Your task to perform on an android device: Search for seafood restaurants on Google Maps Image 0: 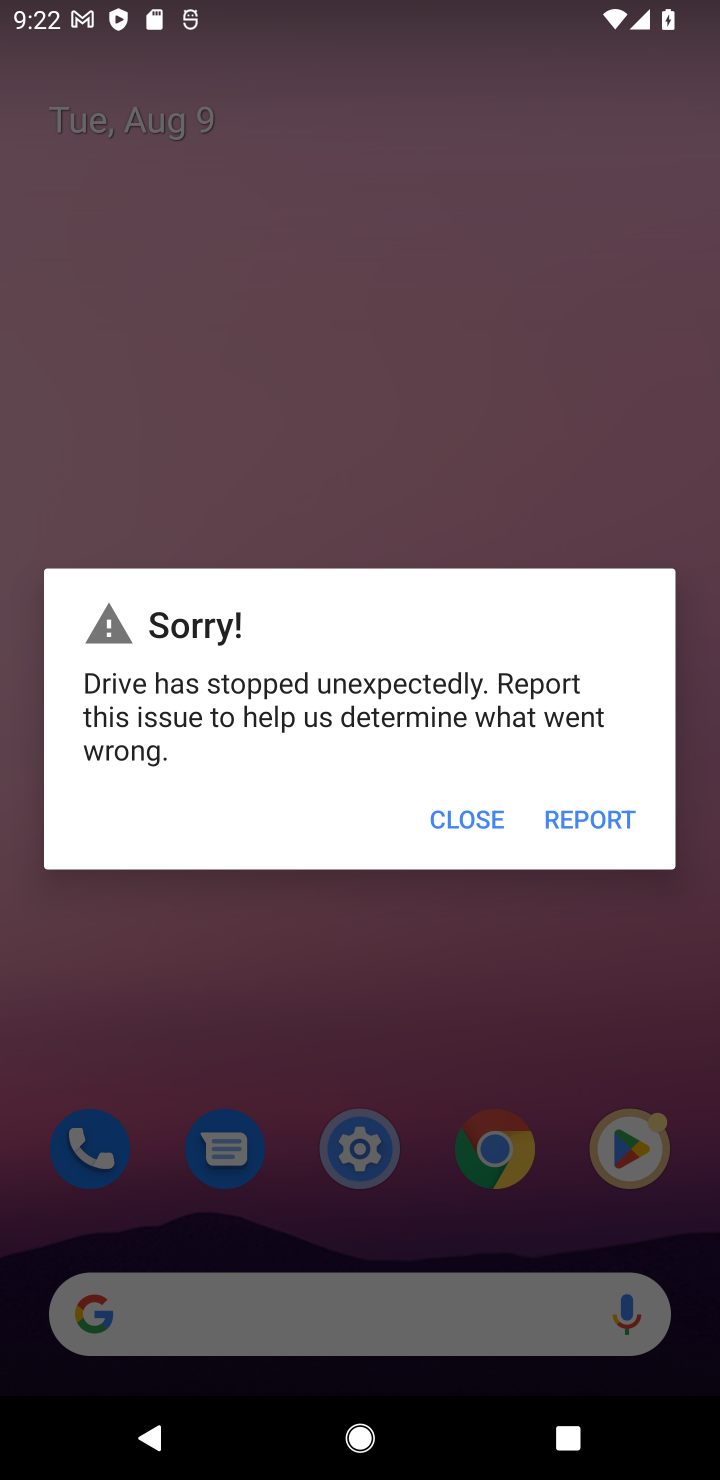
Step 0: click (453, 826)
Your task to perform on an android device: Search for seafood restaurants on Google Maps Image 1: 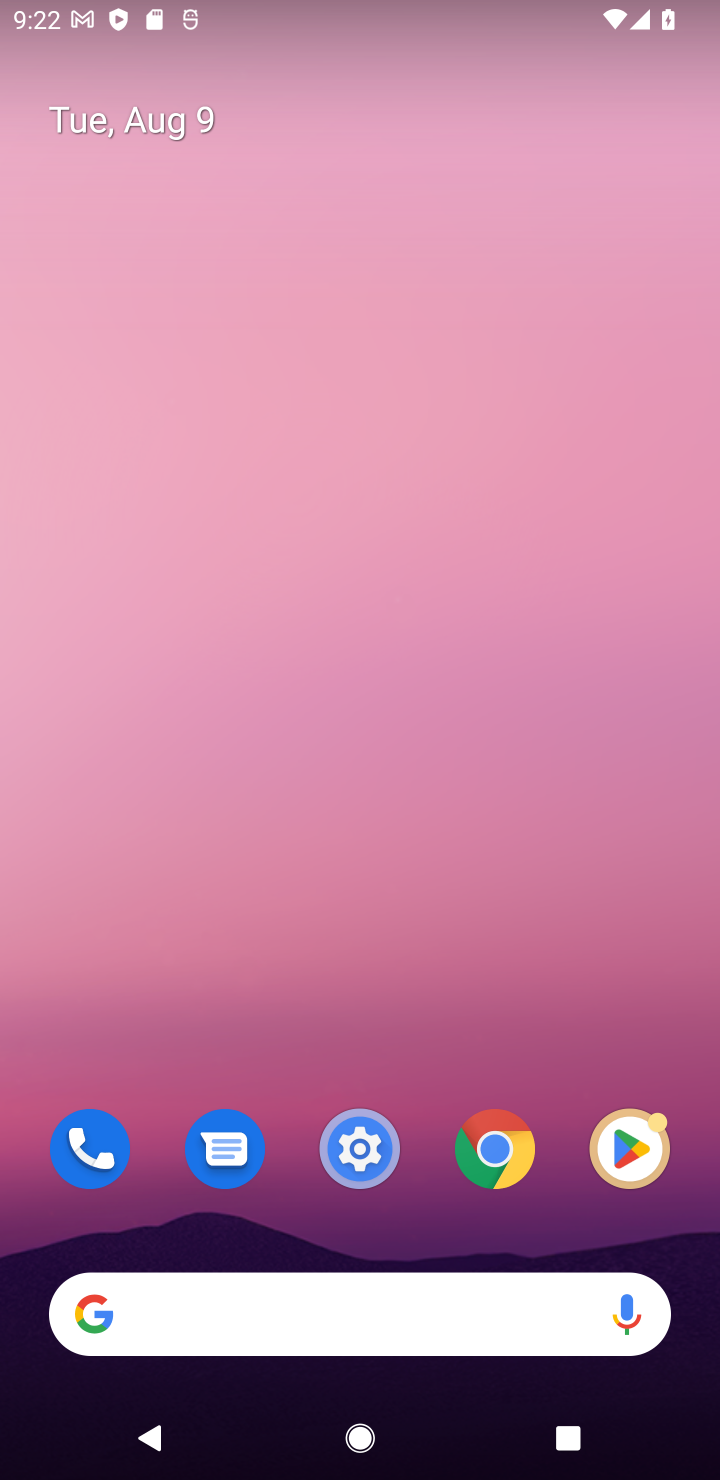
Step 1: drag from (398, 827) to (533, 22)
Your task to perform on an android device: Search for seafood restaurants on Google Maps Image 2: 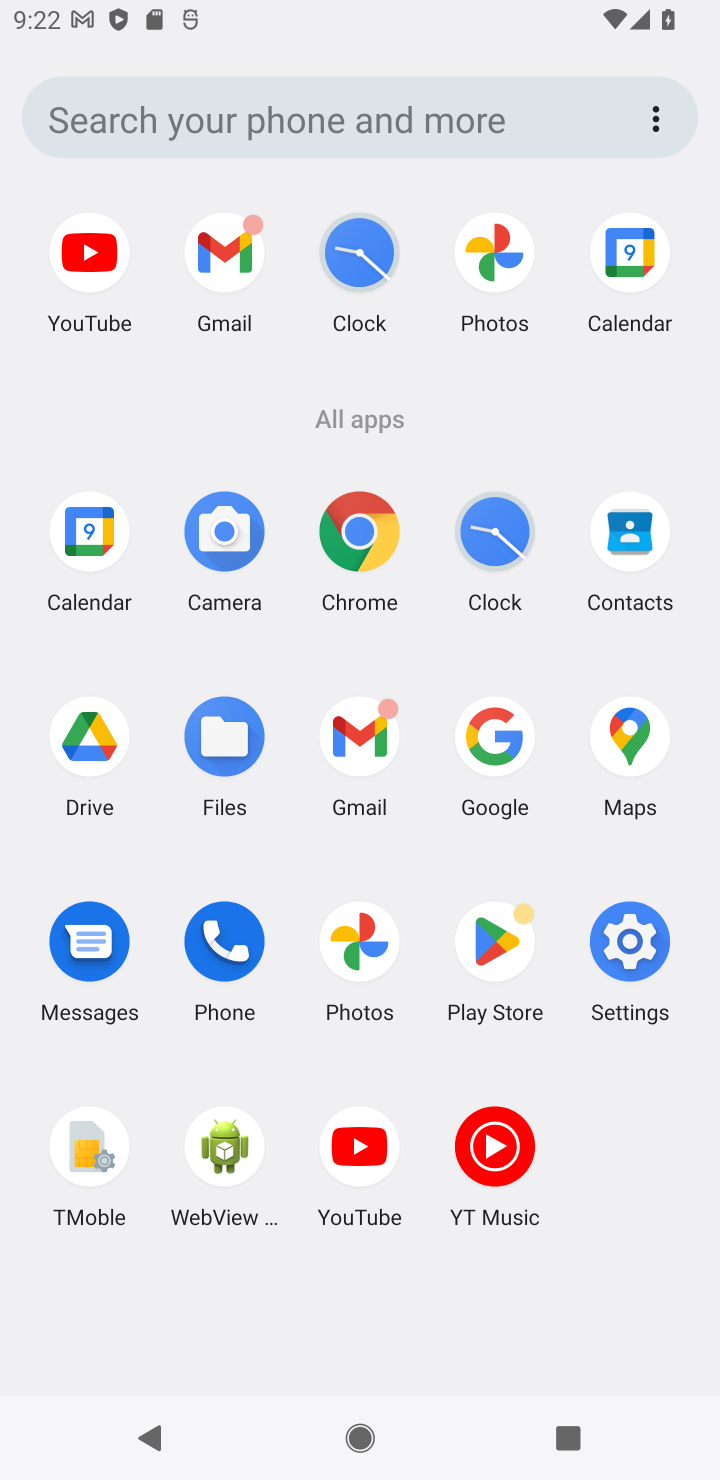
Step 2: click (621, 729)
Your task to perform on an android device: Search for seafood restaurants on Google Maps Image 3: 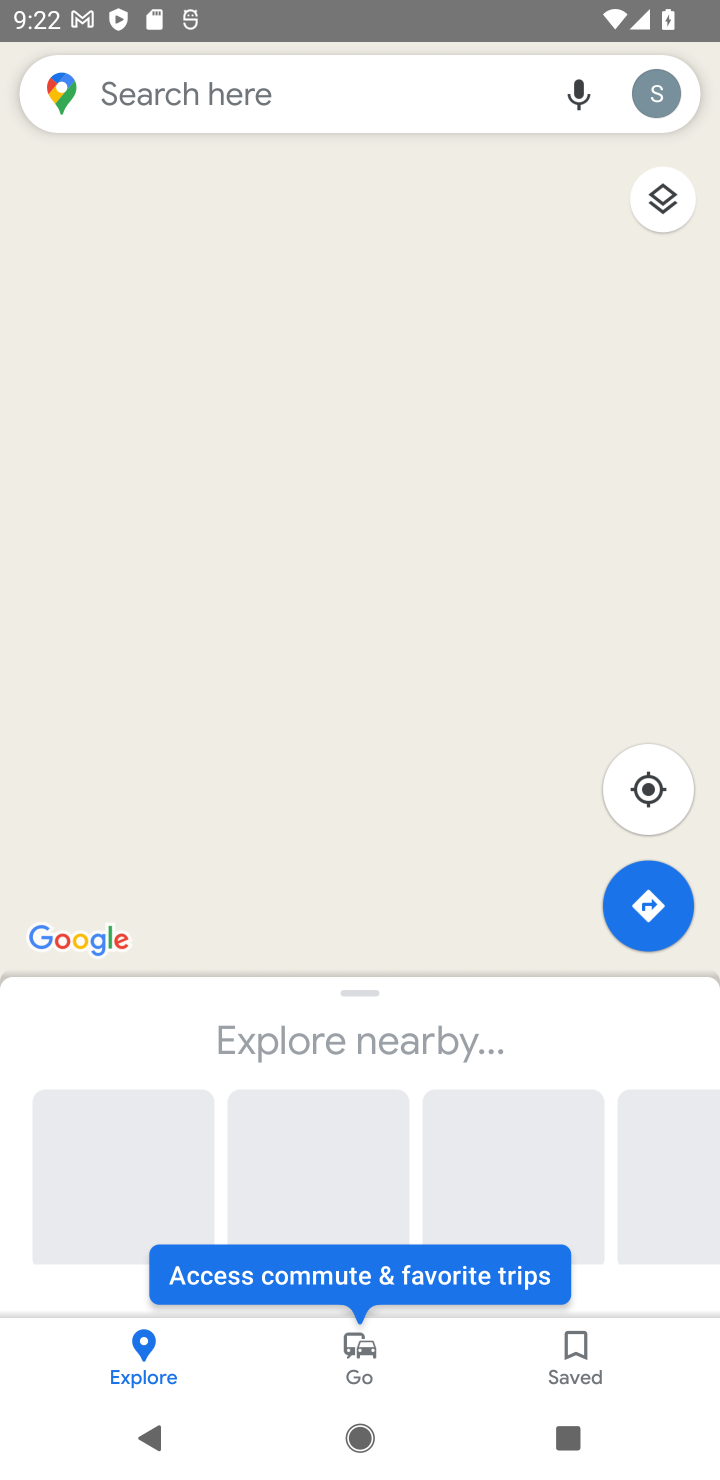
Step 3: click (230, 86)
Your task to perform on an android device: Search for seafood restaurants on Google Maps Image 4: 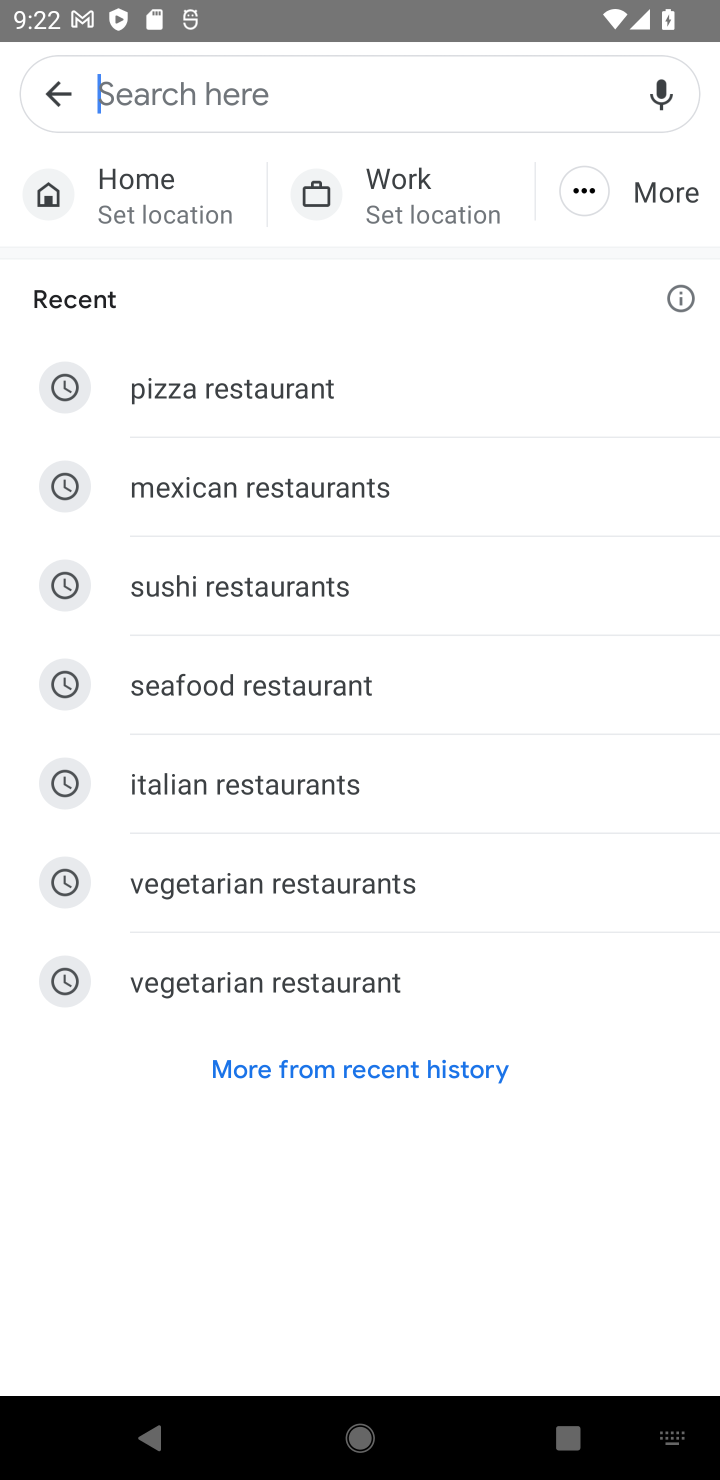
Step 4: type "seafood"
Your task to perform on an android device: Search for seafood restaurants on Google Maps Image 5: 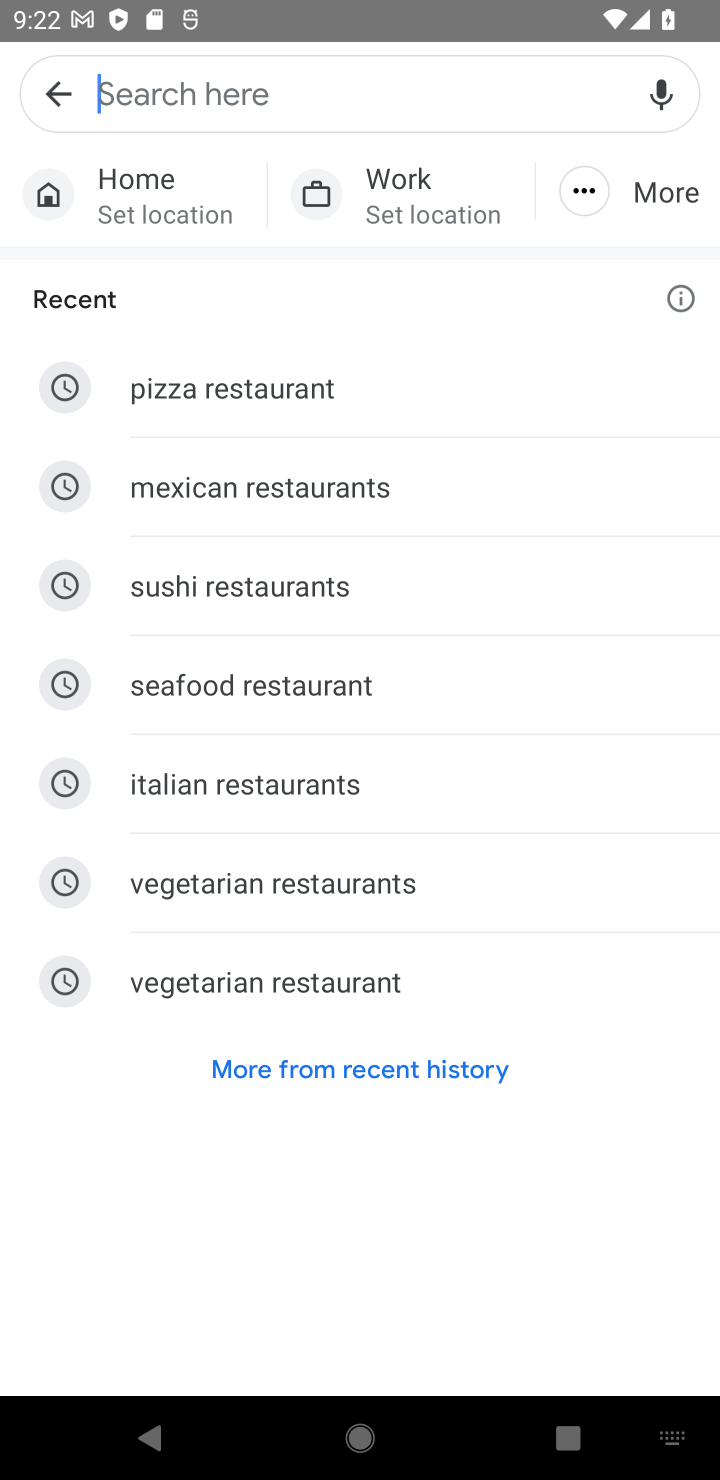
Step 5: click (260, 703)
Your task to perform on an android device: Search for seafood restaurants on Google Maps Image 6: 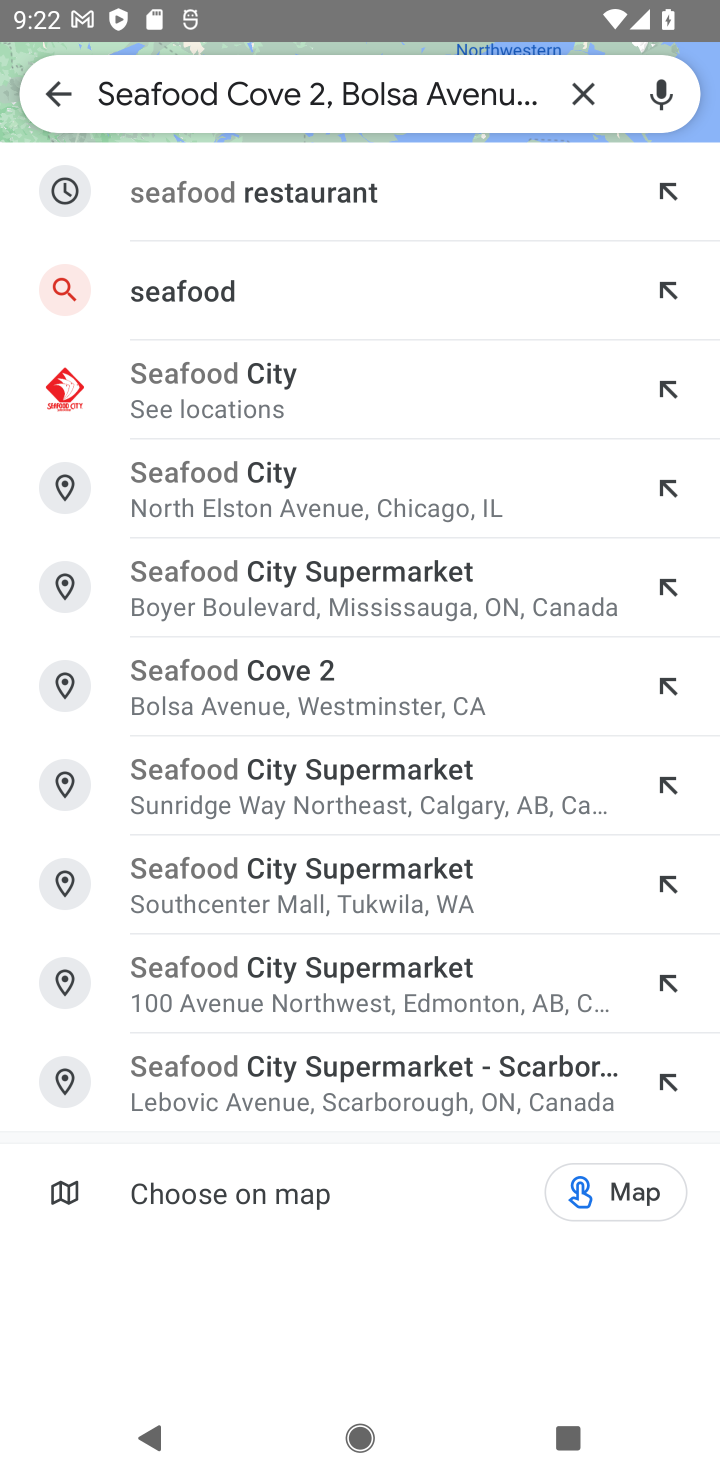
Step 6: click (326, 181)
Your task to perform on an android device: Search for seafood restaurants on Google Maps Image 7: 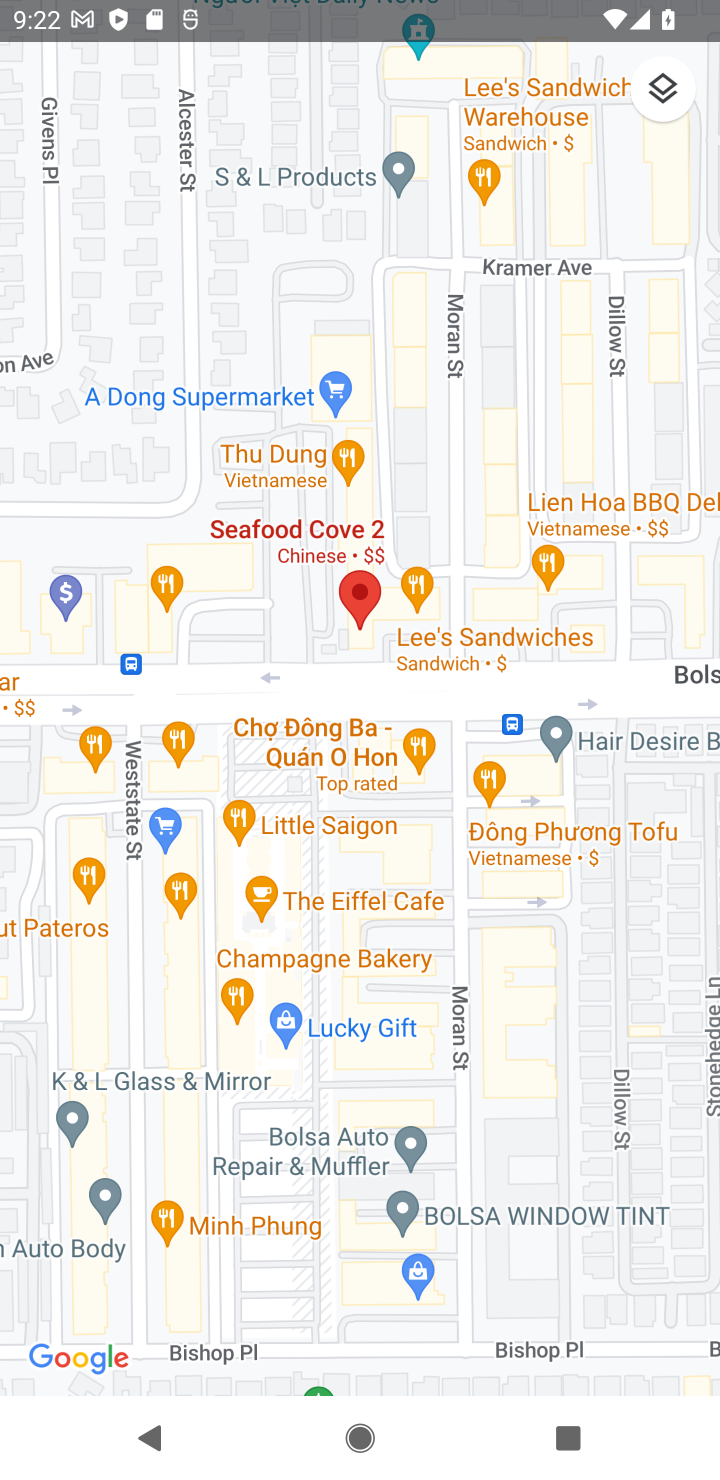
Step 7: drag from (448, 453) to (559, 398)
Your task to perform on an android device: Search for seafood restaurants on Google Maps Image 8: 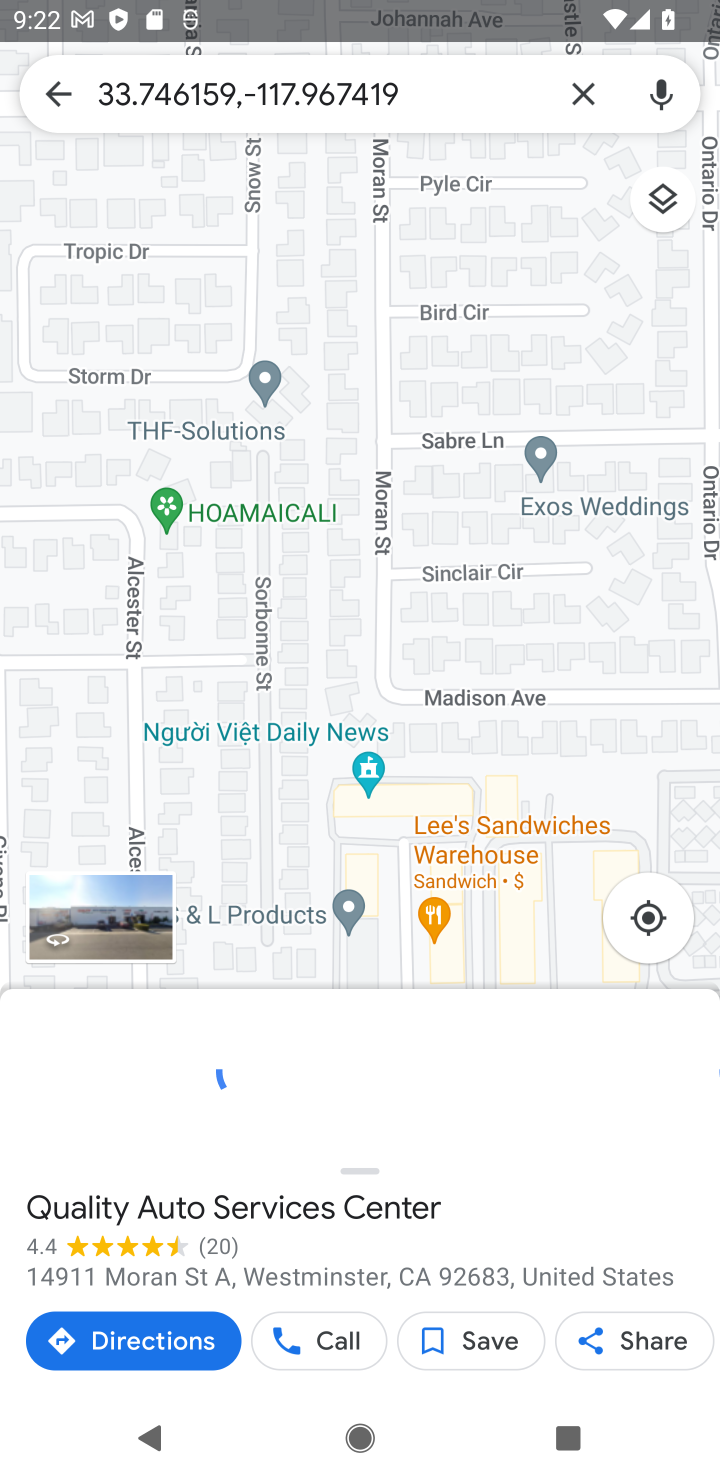
Step 8: click (577, 82)
Your task to perform on an android device: Search for seafood restaurants on Google Maps Image 9: 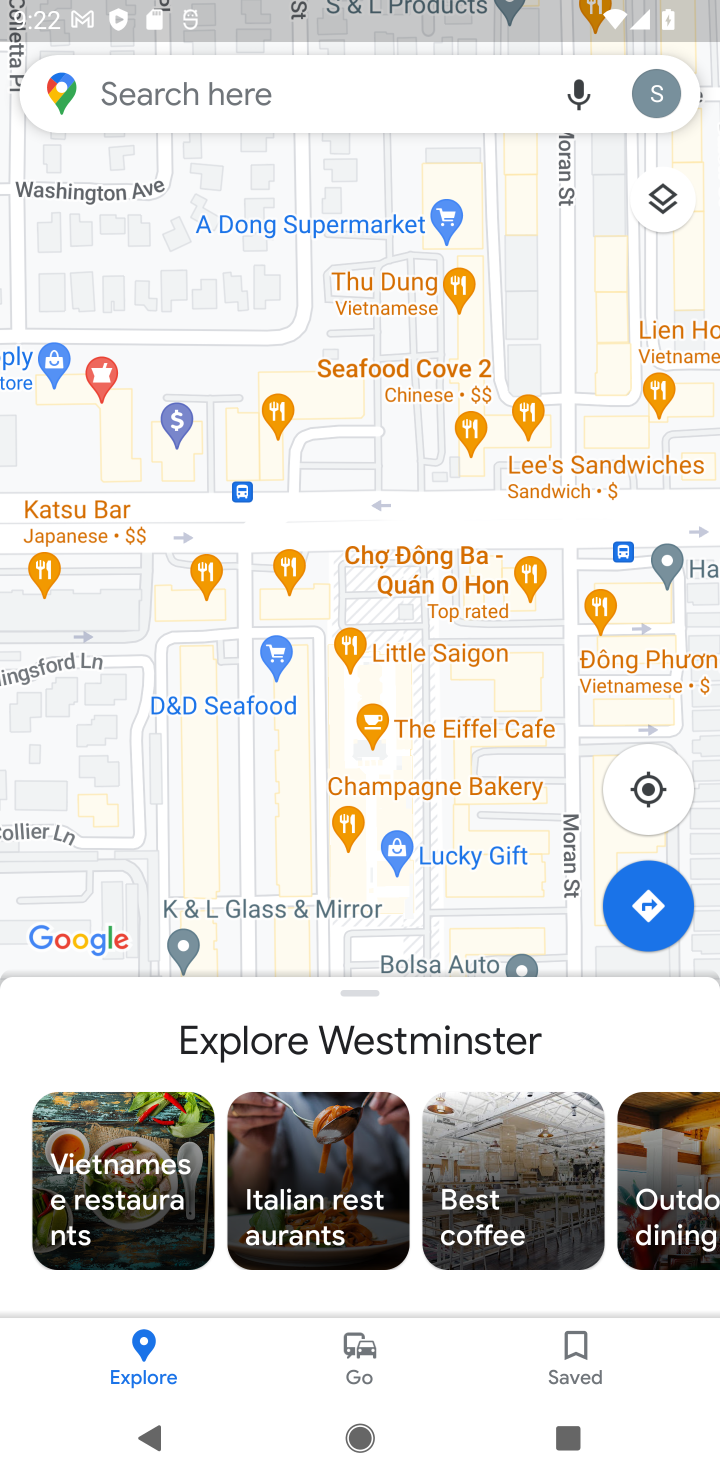
Step 9: click (239, 87)
Your task to perform on an android device: Search for seafood restaurants on Google Maps Image 10: 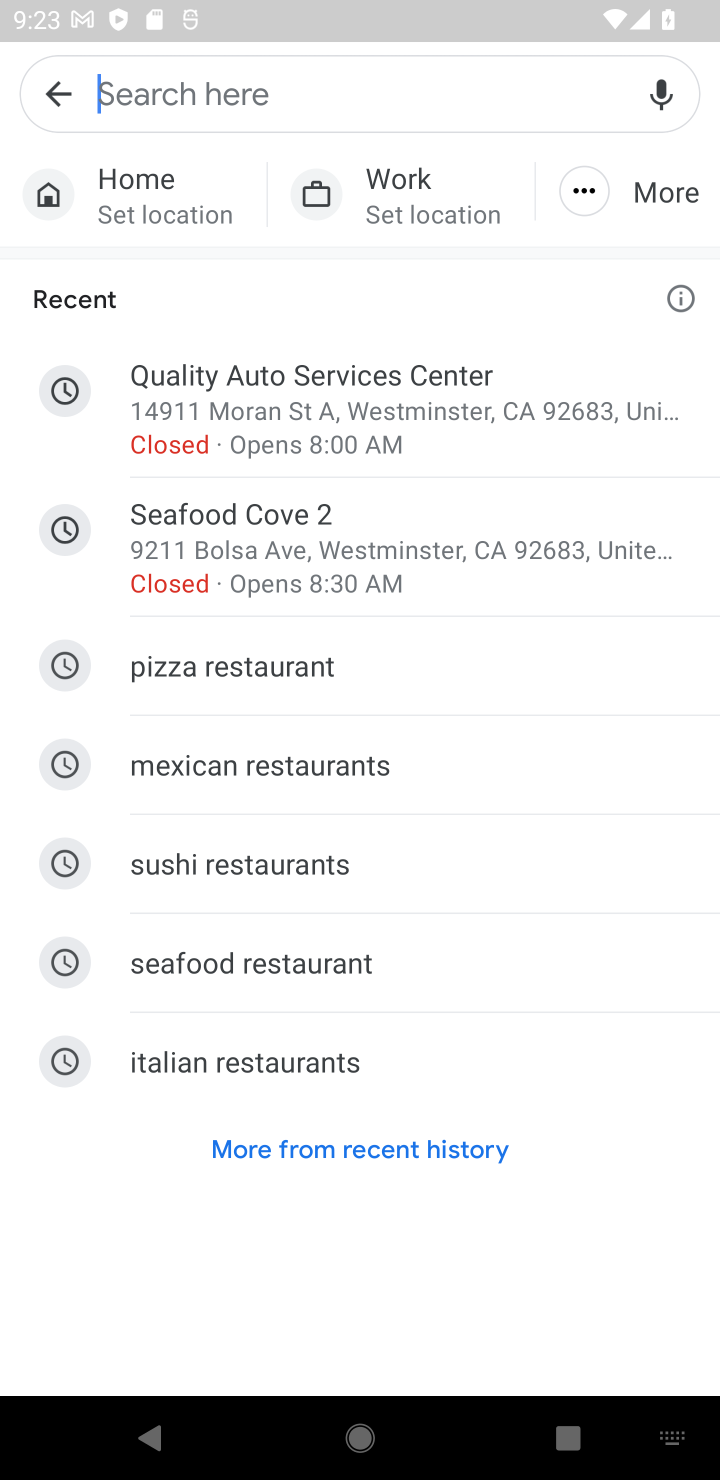
Step 10: type "seafood"
Your task to perform on an android device: Search for seafood restaurants on Google Maps Image 11: 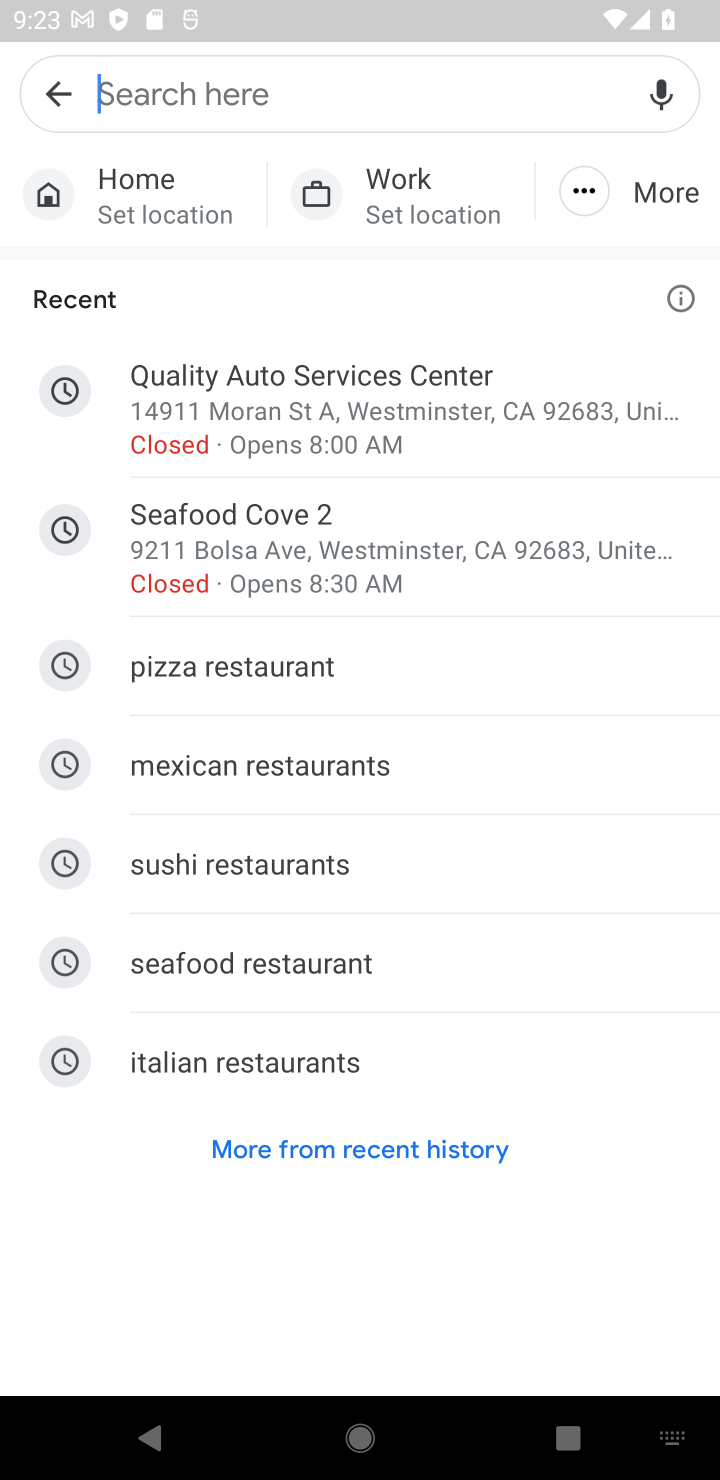
Step 11: click (353, 969)
Your task to perform on an android device: Search for seafood restaurants on Google Maps Image 12: 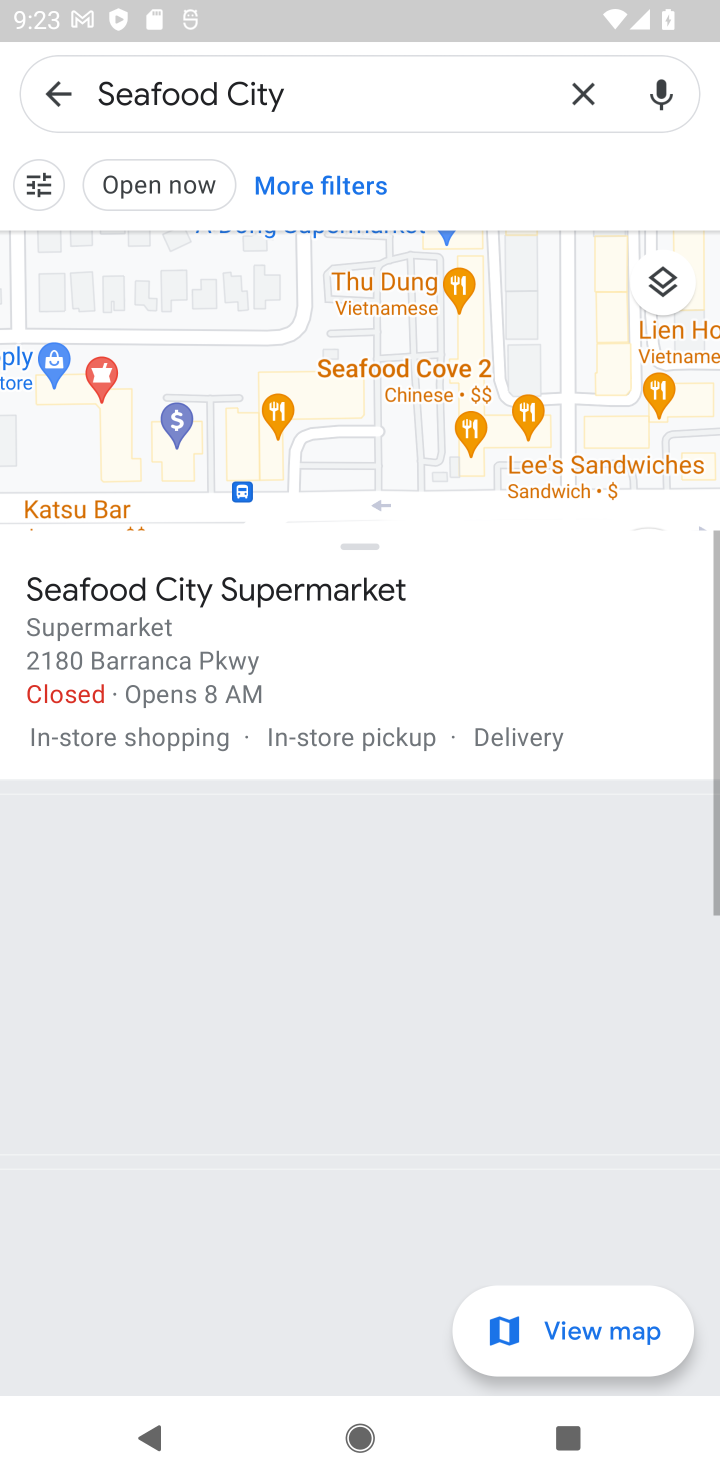
Step 12: click (277, 300)
Your task to perform on an android device: Search for seafood restaurants on Google Maps Image 13: 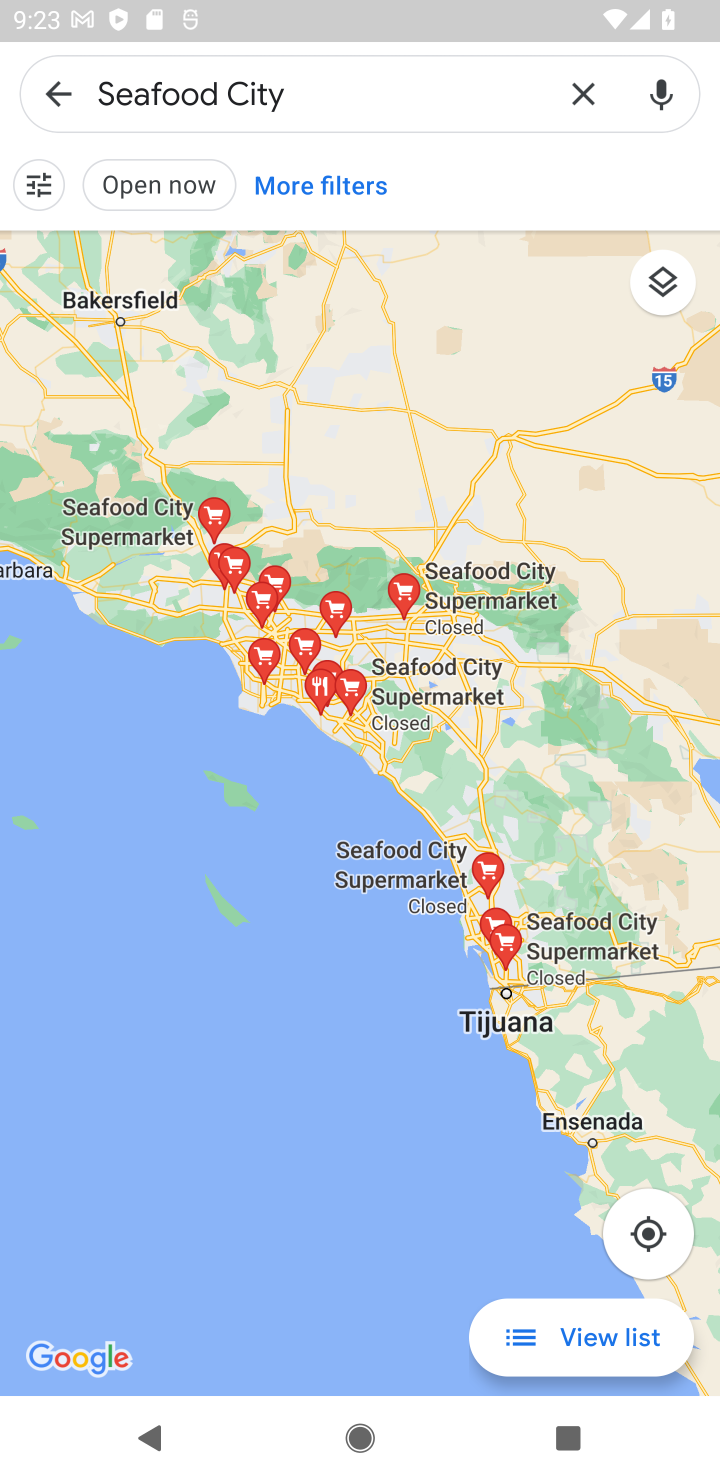
Step 13: click (584, 83)
Your task to perform on an android device: Search for seafood restaurants on Google Maps Image 14: 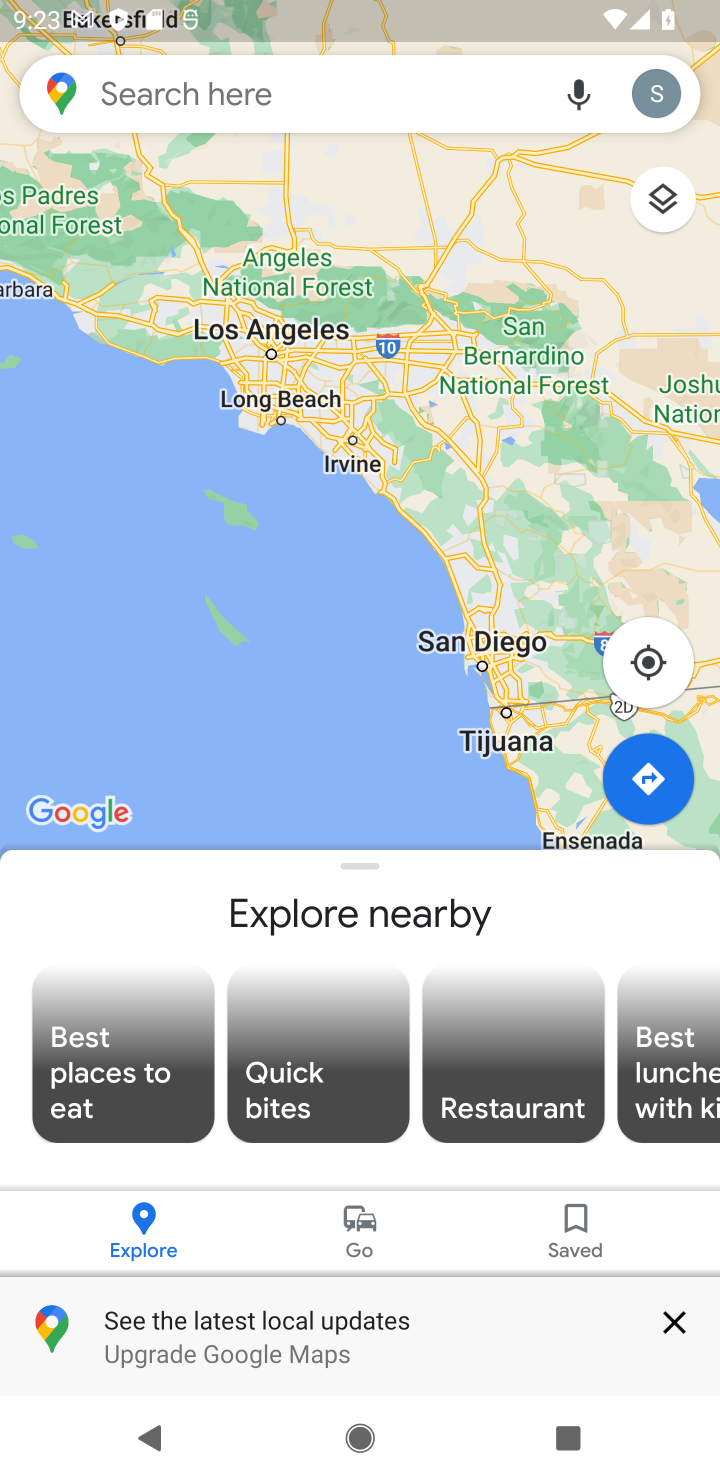
Step 14: click (253, 105)
Your task to perform on an android device: Search for seafood restaurants on Google Maps Image 15: 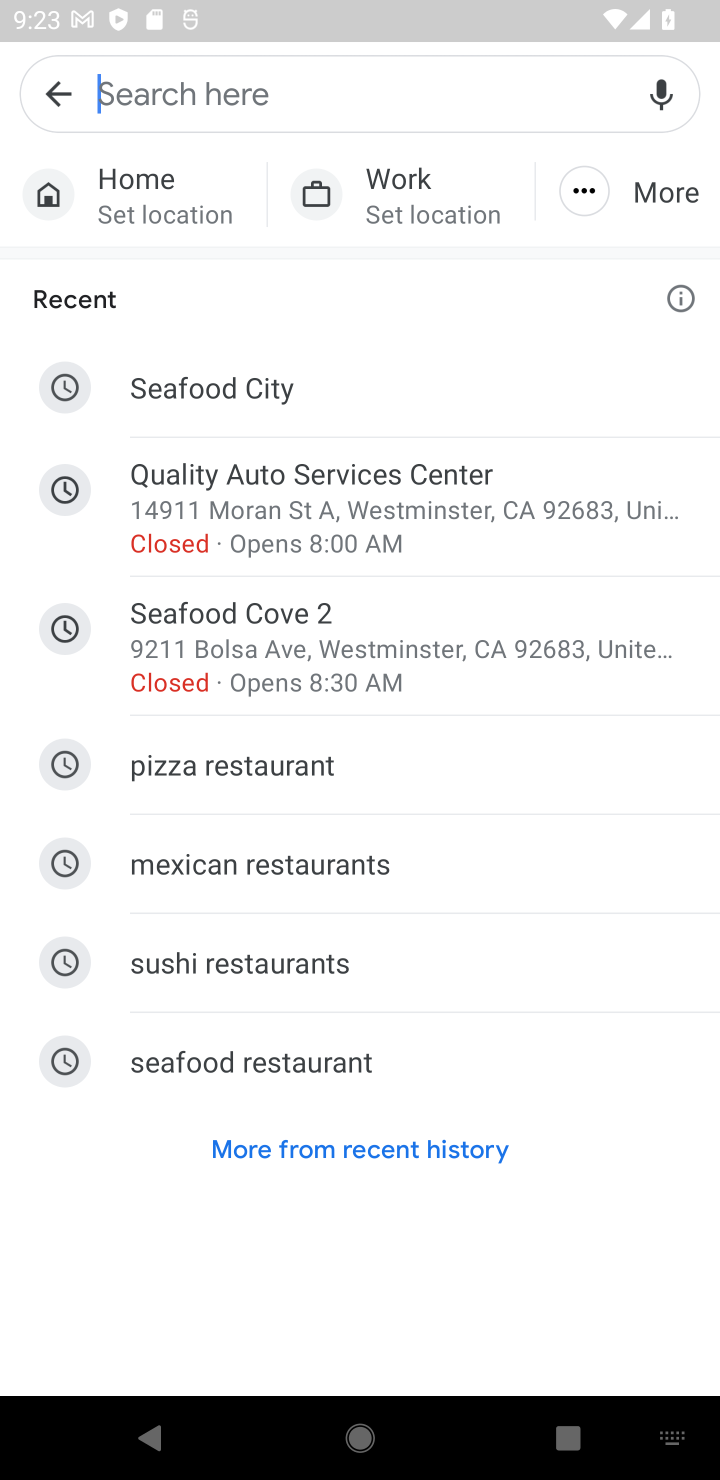
Step 15: click (179, 1067)
Your task to perform on an android device: Search for seafood restaurants on Google Maps Image 16: 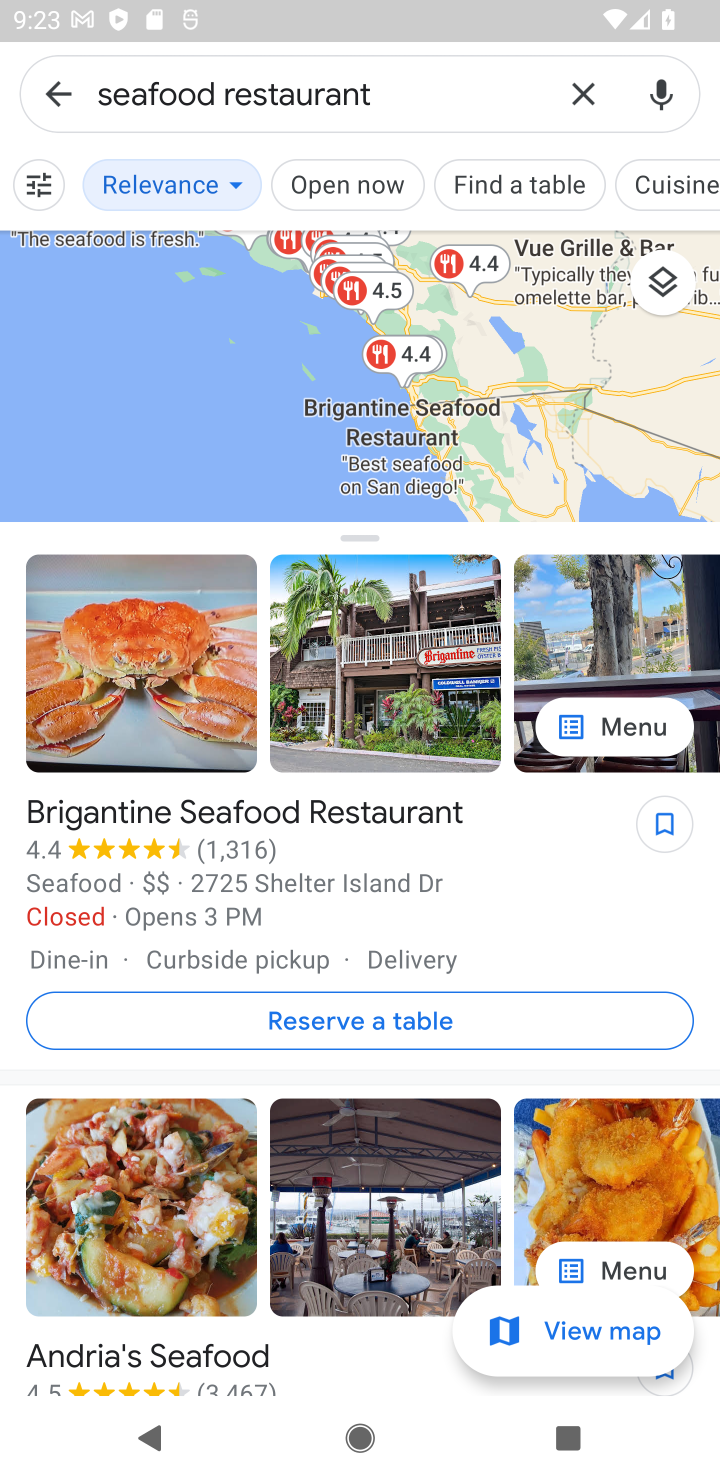
Step 16: task complete